Your task to perform on an android device: open chrome privacy settings Image 0: 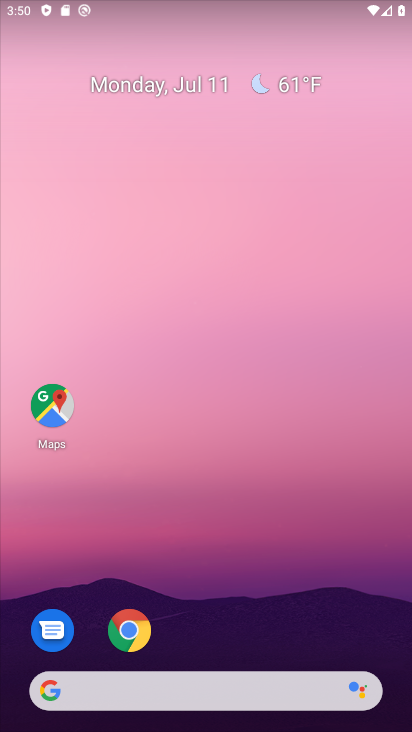
Step 0: drag from (182, 675) to (268, 181)
Your task to perform on an android device: open chrome privacy settings Image 1: 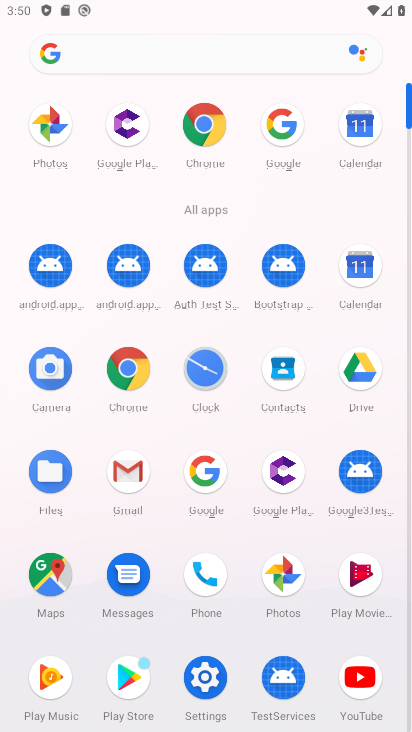
Step 1: click (115, 360)
Your task to perform on an android device: open chrome privacy settings Image 2: 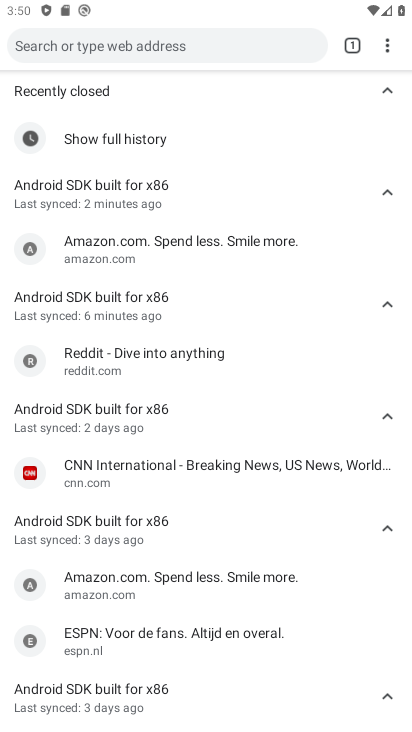
Step 2: drag from (395, 47) to (286, 380)
Your task to perform on an android device: open chrome privacy settings Image 3: 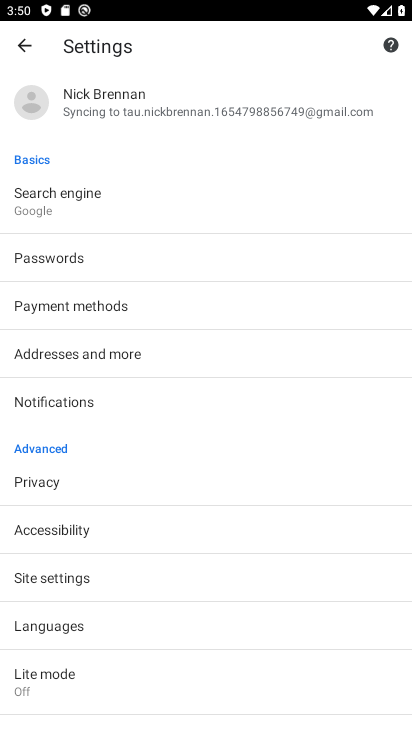
Step 3: click (157, 485)
Your task to perform on an android device: open chrome privacy settings Image 4: 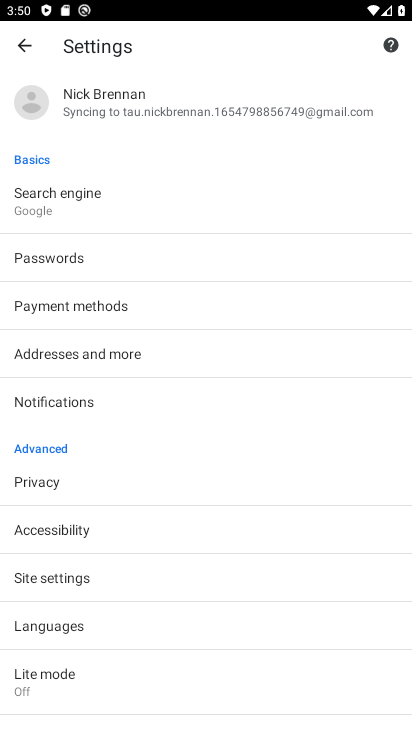
Step 4: click (61, 482)
Your task to perform on an android device: open chrome privacy settings Image 5: 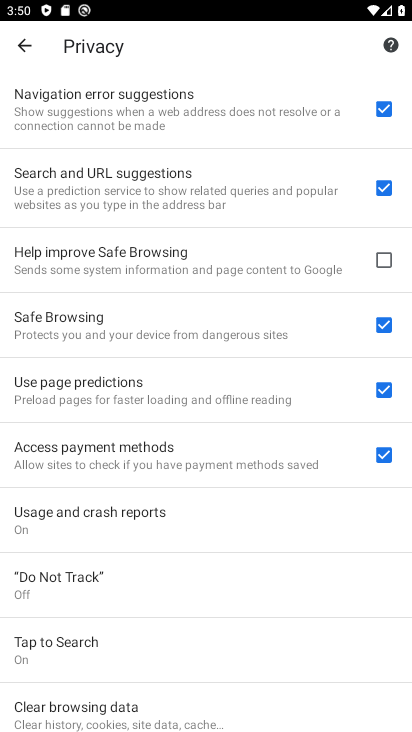
Step 5: task complete